Your task to perform on an android device: add a contact in the contacts app Image 0: 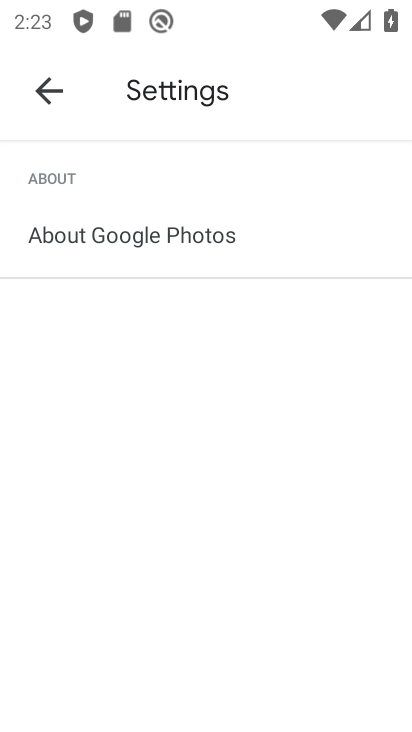
Step 0: press home button
Your task to perform on an android device: add a contact in the contacts app Image 1: 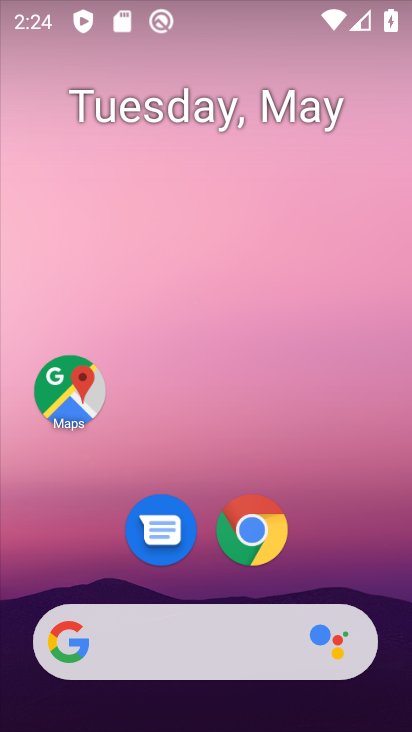
Step 1: drag from (53, 550) to (284, 180)
Your task to perform on an android device: add a contact in the contacts app Image 2: 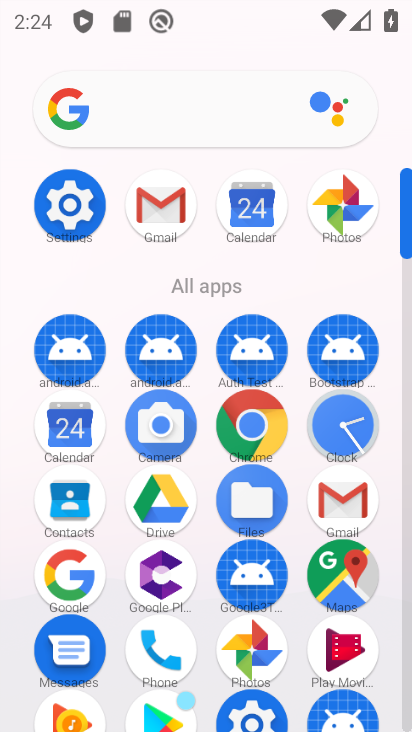
Step 2: click (157, 659)
Your task to perform on an android device: add a contact in the contacts app Image 3: 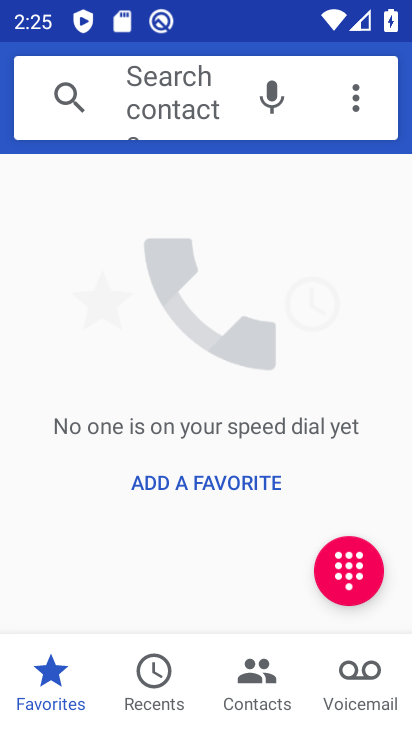
Step 3: click (263, 692)
Your task to perform on an android device: add a contact in the contacts app Image 4: 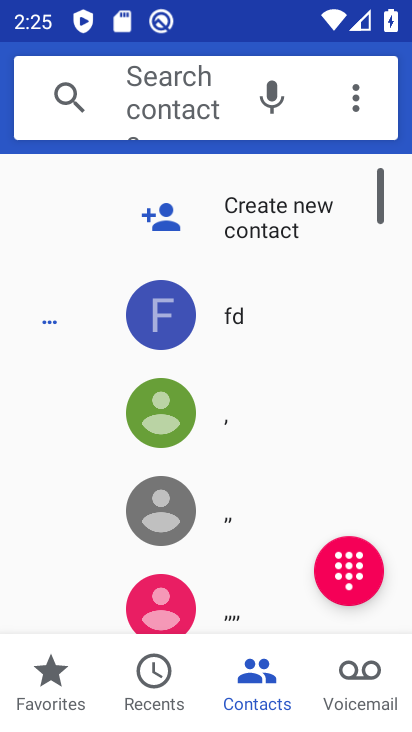
Step 4: task complete